Your task to perform on an android device: Go to settings Image 0: 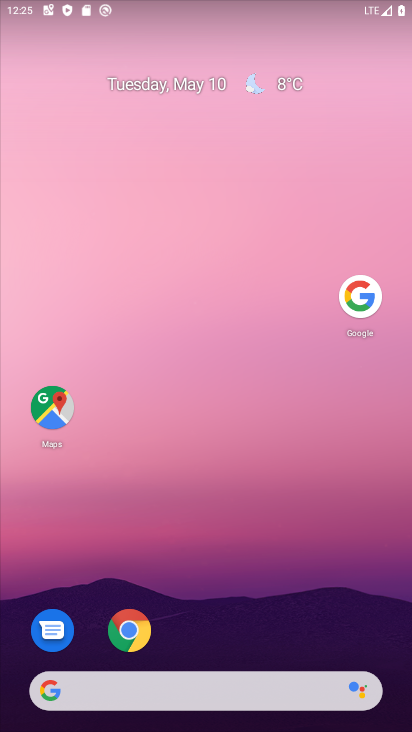
Step 0: drag from (210, 669) to (367, 119)
Your task to perform on an android device: Go to settings Image 1: 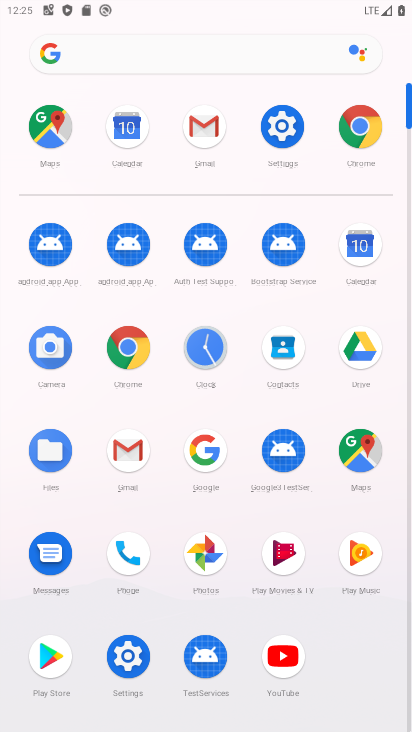
Step 1: click (273, 131)
Your task to perform on an android device: Go to settings Image 2: 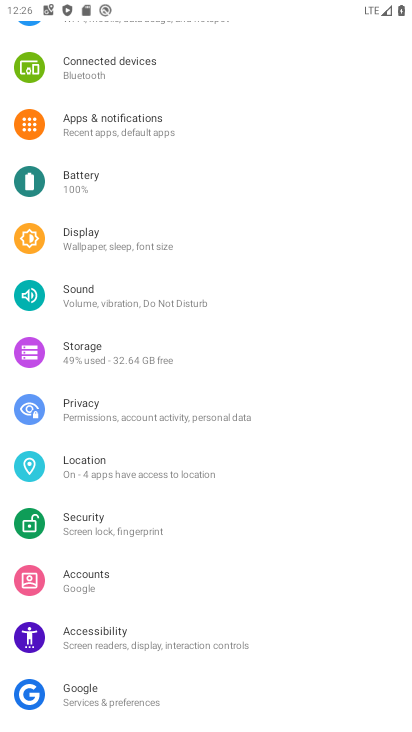
Step 2: task complete